Your task to perform on an android device: Check the weather Image 0: 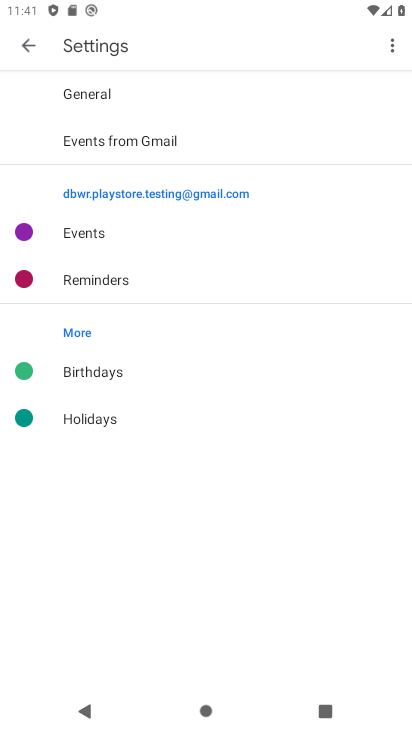
Step 0: press home button
Your task to perform on an android device: Check the weather Image 1: 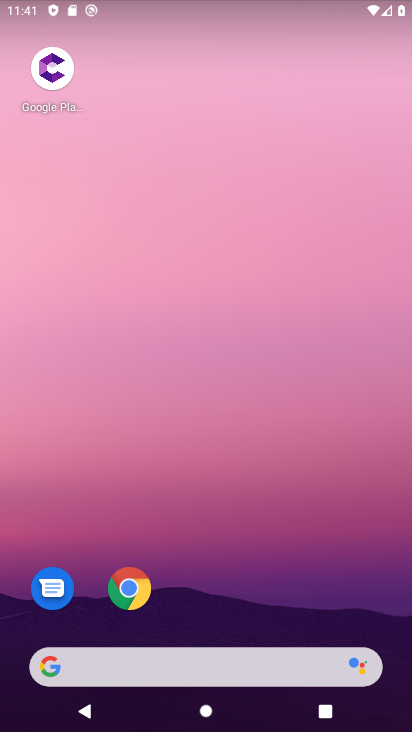
Step 1: click (115, 589)
Your task to perform on an android device: Check the weather Image 2: 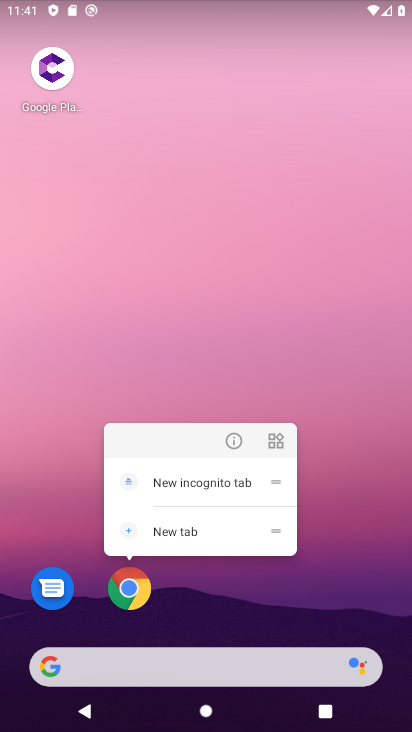
Step 2: click (129, 588)
Your task to perform on an android device: Check the weather Image 3: 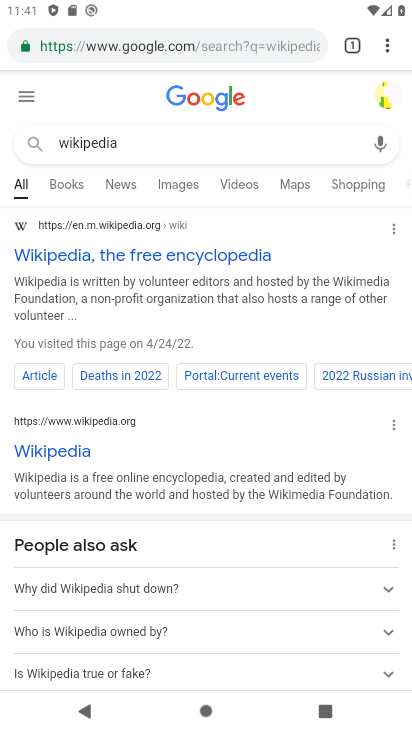
Step 3: click (86, 53)
Your task to perform on an android device: Check the weather Image 4: 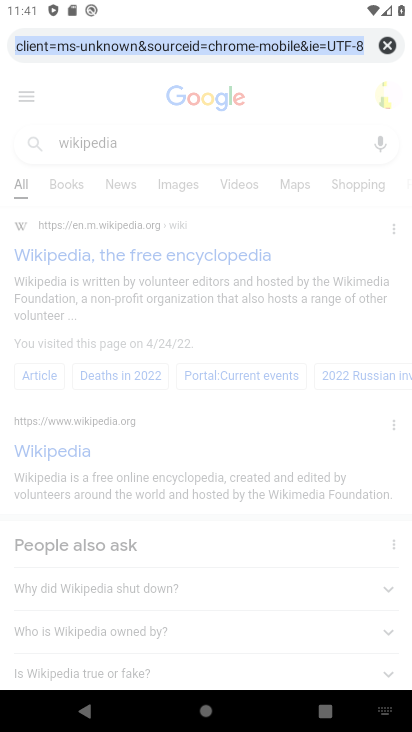
Step 4: type "Weather"
Your task to perform on an android device: Check the weather Image 5: 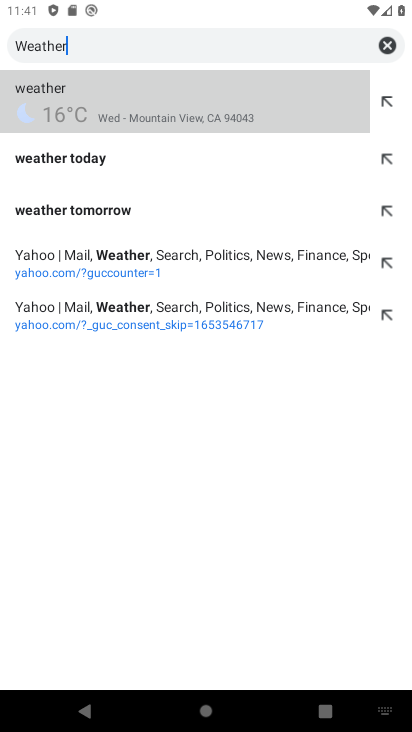
Step 5: click (93, 108)
Your task to perform on an android device: Check the weather Image 6: 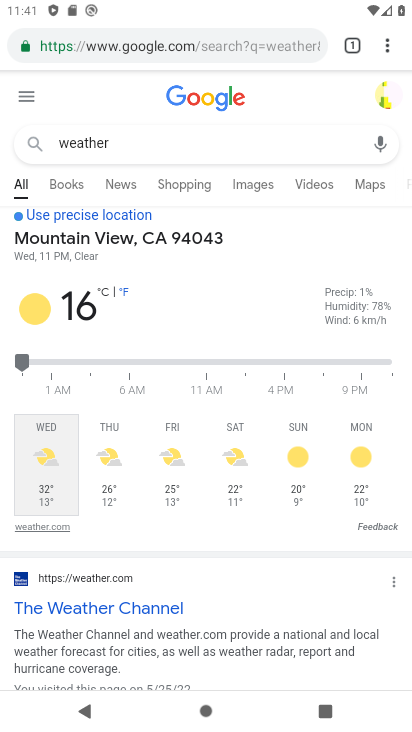
Step 6: task complete